Your task to perform on an android device: turn on wifi Image 0: 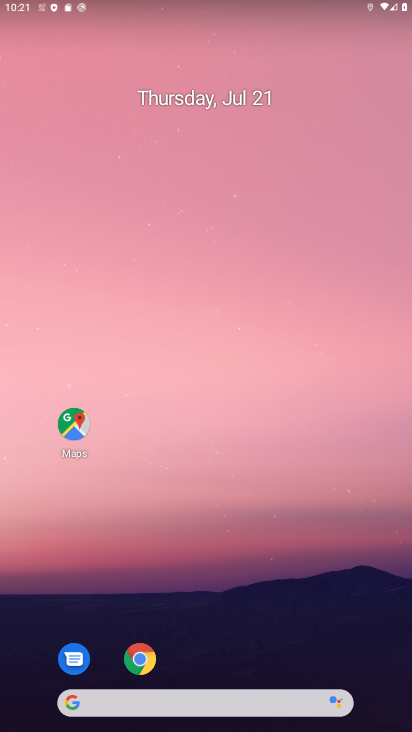
Step 0: drag from (201, 679) to (179, 122)
Your task to perform on an android device: turn on wifi Image 1: 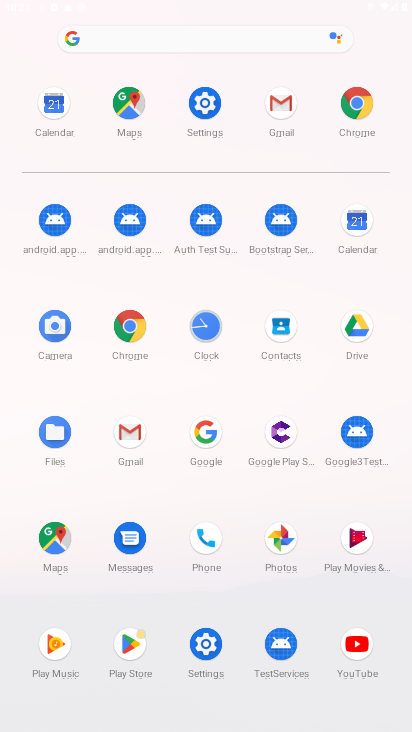
Step 1: click (204, 635)
Your task to perform on an android device: turn on wifi Image 2: 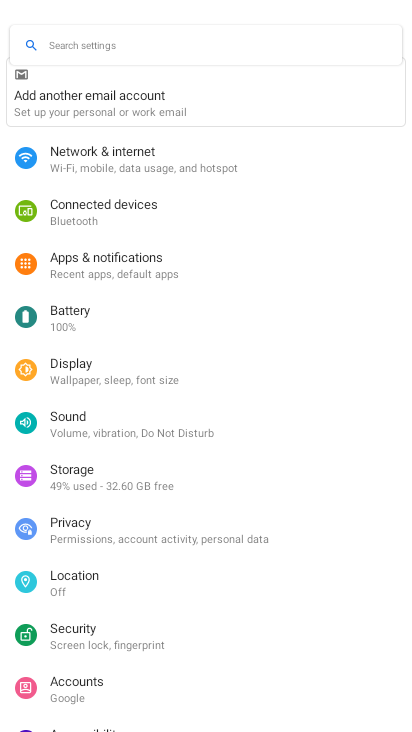
Step 2: click (104, 148)
Your task to perform on an android device: turn on wifi Image 3: 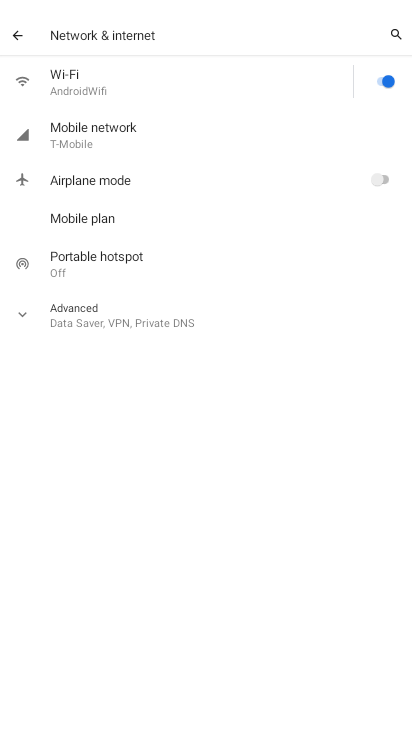
Step 3: click (84, 95)
Your task to perform on an android device: turn on wifi Image 4: 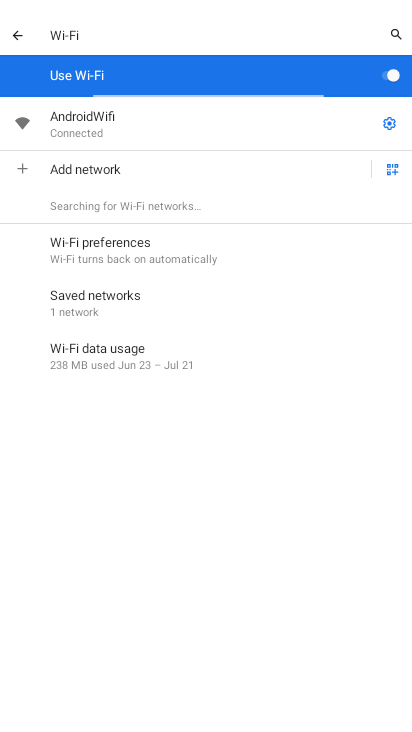
Step 4: task complete